Your task to perform on an android device: change the upload size in google photos Image 0: 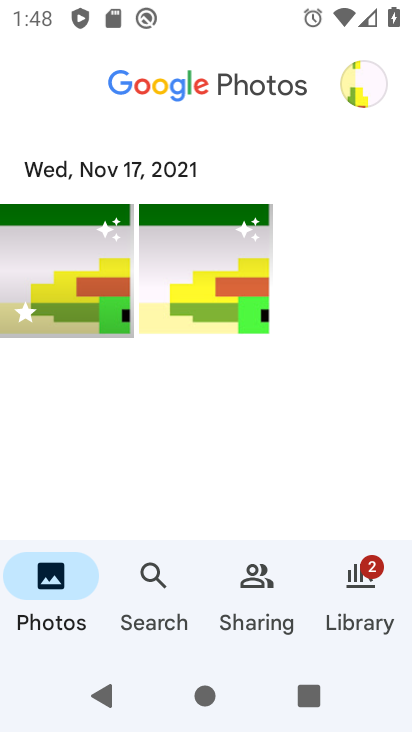
Step 0: press home button
Your task to perform on an android device: change the upload size in google photos Image 1: 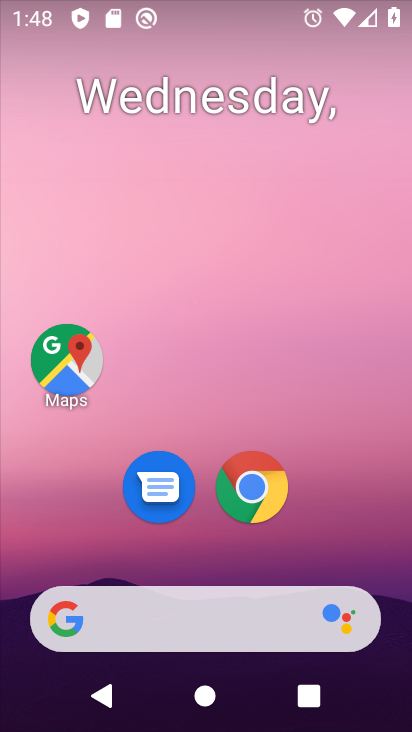
Step 1: drag from (394, 608) to (275, 60)
Your task to perform on an android device: change the upload size in google photos Image 2: 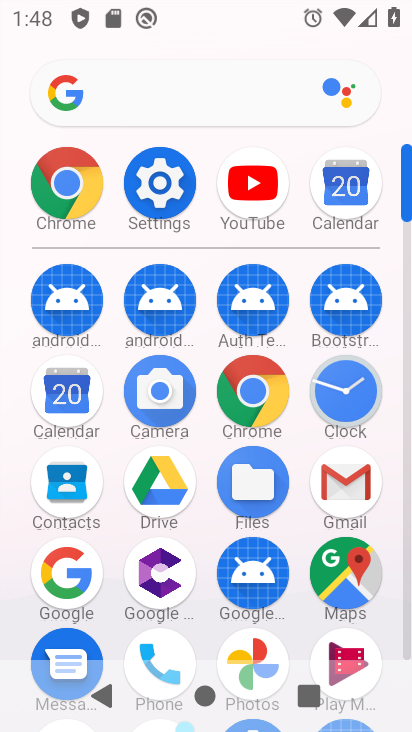
Step 2: click (260, 646)
Your task to perform on an android device: change the upload size in google photos Image 3: 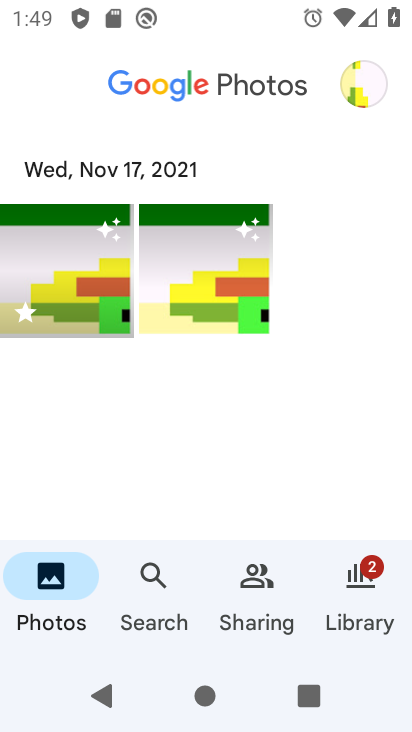
Step 3: click (349, 86)
Your task to perform on an android device: change the upload size in google photos Image 4: 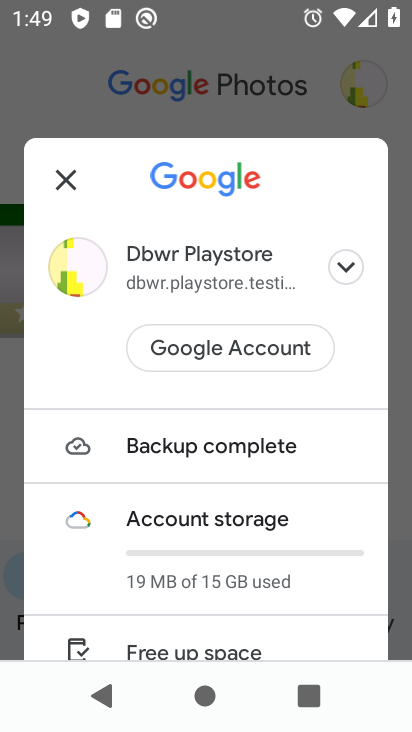
Step 4: drag from (147, 591) to (199, 228)
Your task to perform on an android device: change the upload size in google photos Image 5: 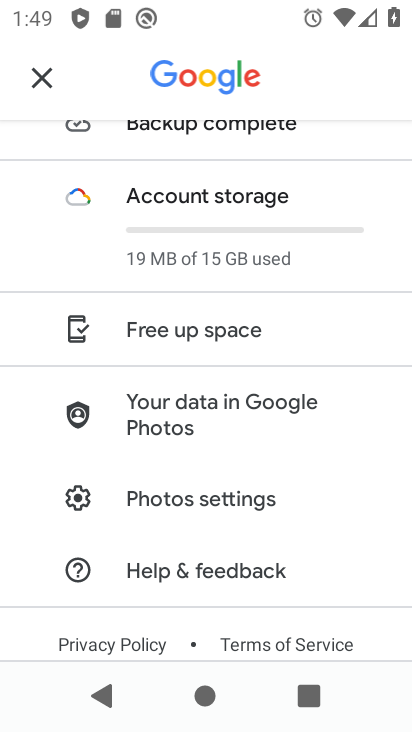
Step 5: click (248, 500)
Your task to perform on an android device: change the upload size in google photos Image 6: 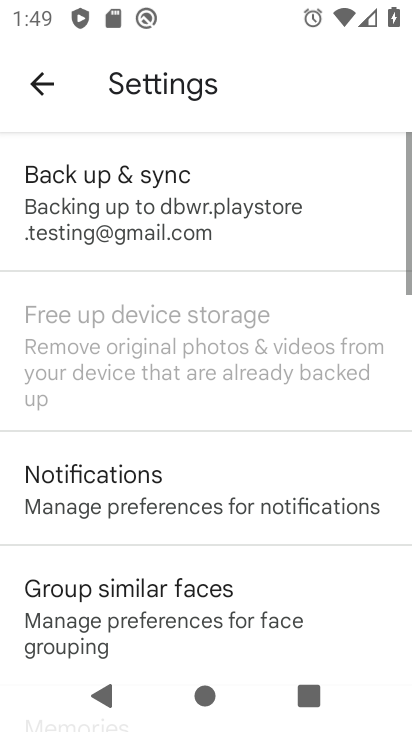
Step 6: click (161, 188)
Your task to perform on an android device: change the upload size in google photos Image 7: 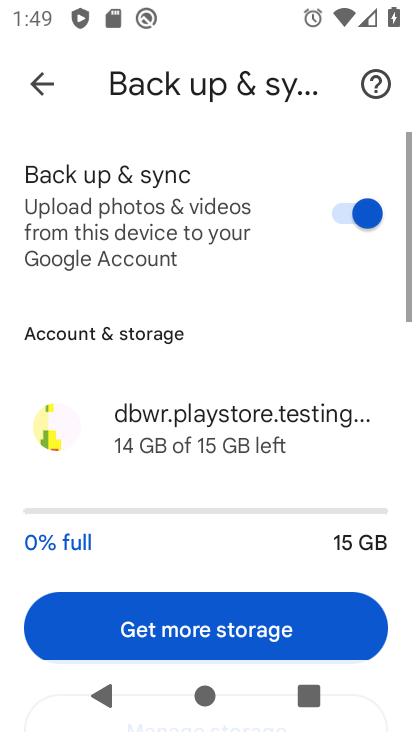
Step 7: drag from (171, 542) to (192, 92)
Your task to perform on an android device: change the upload size in google photos Image 8: 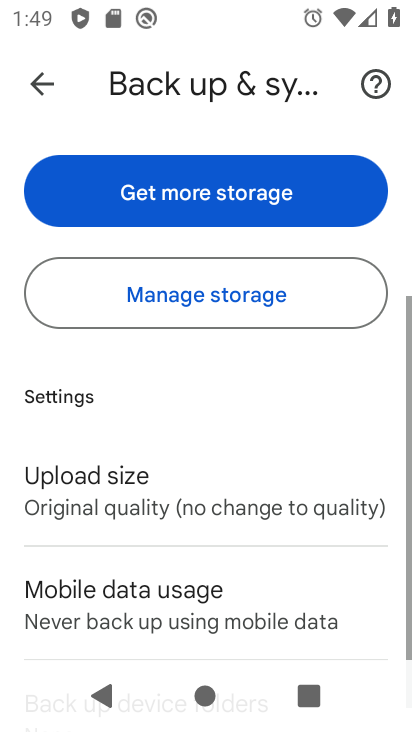
Step 8: click (171, 492)
Your task to perform on an android device: change the upload size in google photos Image 9: 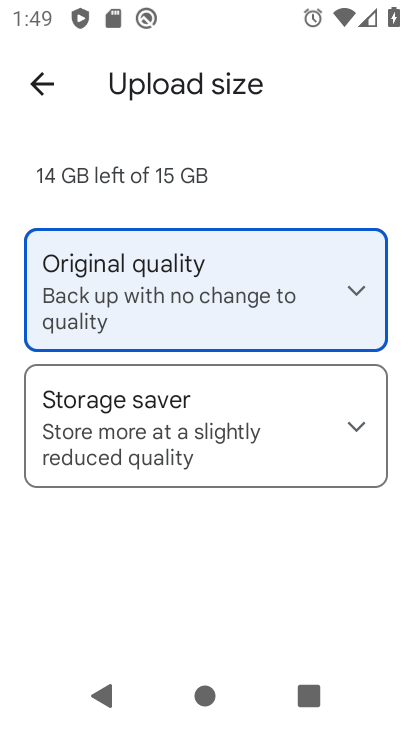
Step 9: click (365, 408)
Your task to perform on an android device: change the upload size in google photos Image 10: 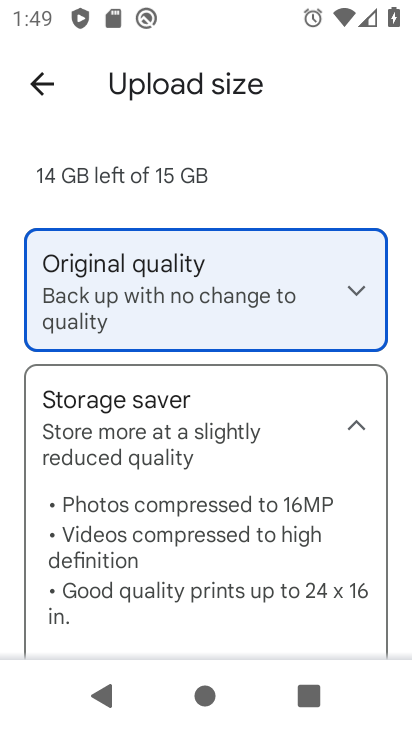
Step 10: drag from (217, 570) to (213, 202)
Your task to perform on an android device: change the upload size in google photos Image 11: 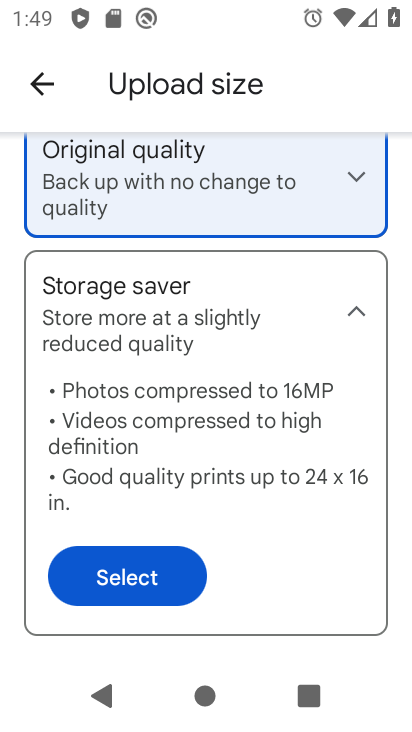
Step 11: click (121, 549)
Your task to perform on an android device: change the upload size in google photos Image 12: 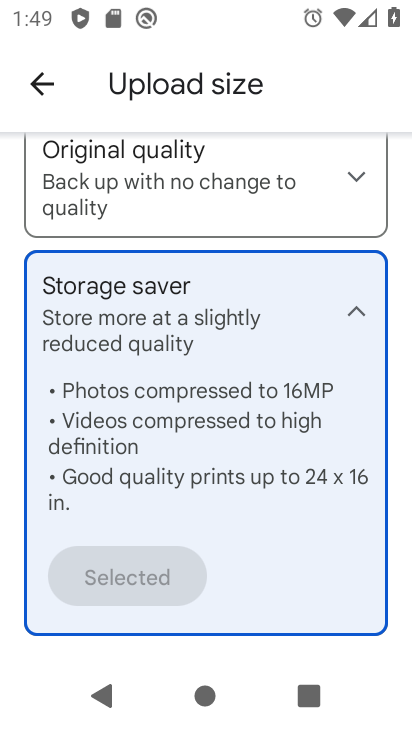
Step 12: task complete